Your task to perform on an android device: Do I have any events today? Image 0: 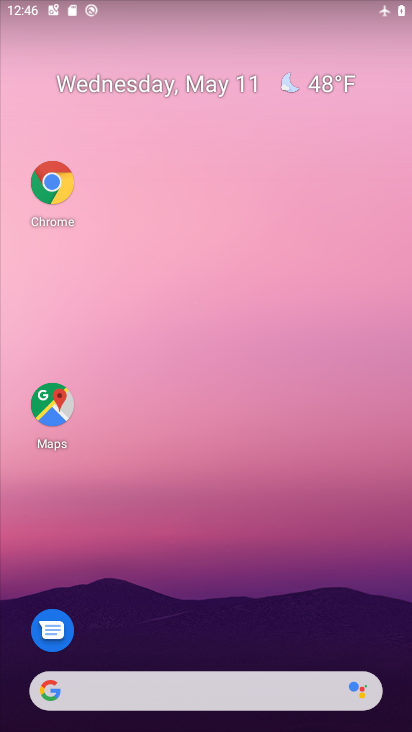
Step 0: drag from (218, 656) to (163, 50)
Your task to perform on an android device: Do I have any events today? Image 1: 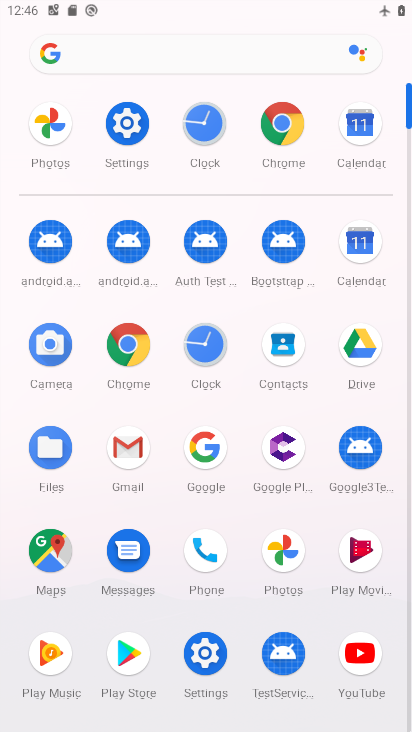
Step 1: click (347, 247)
Your task to perform on an android device: Do I have any events today? Image 2: 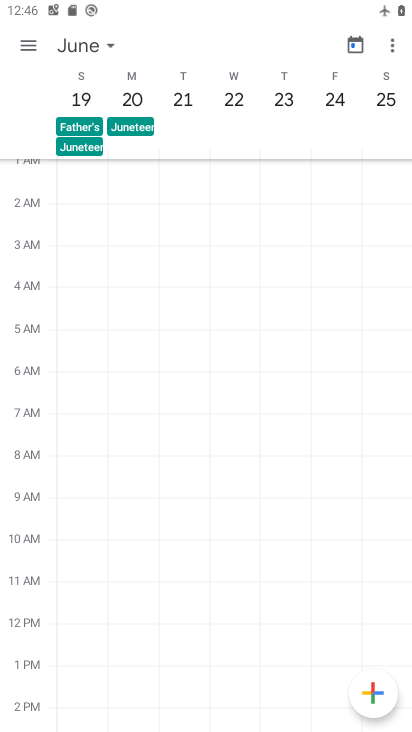
Step 2: click (362, 45)
Your task to perform on an android device: Do I have any events today? Image 3: 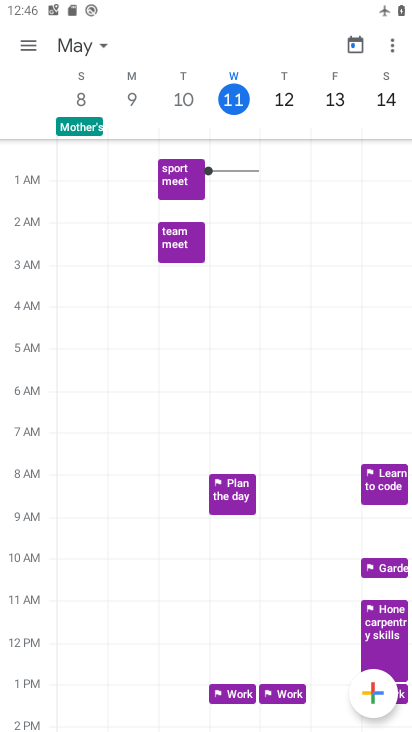
Step 3: click (237, 89)
Your task to perform on an android device: Do I have any events today? Image 4: 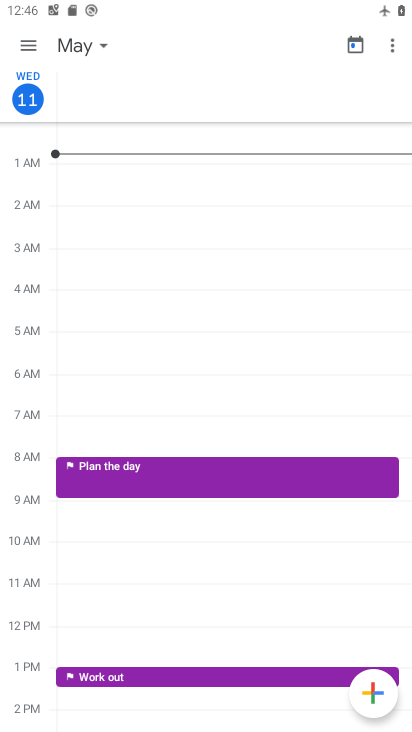
Step 4: task complete